Your task to perform on an android device: snooze an email in the gmail app Image 0: 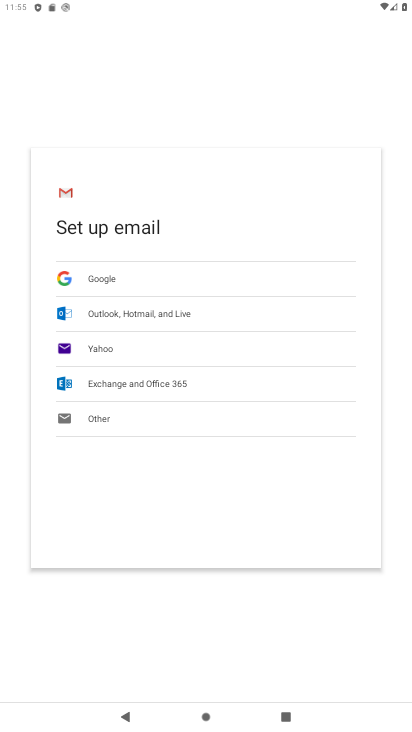
Step 0: press home button
Your task to perform on an android device: snooze an email in the gmail app Image 1: 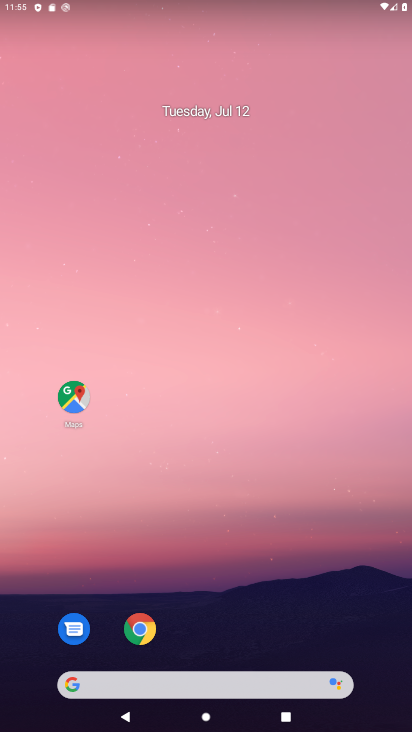
Step 1: drag from (216, 579) to (5, 541)
Your task to perform on an android device: snooze an email in the gmail app Image 2: 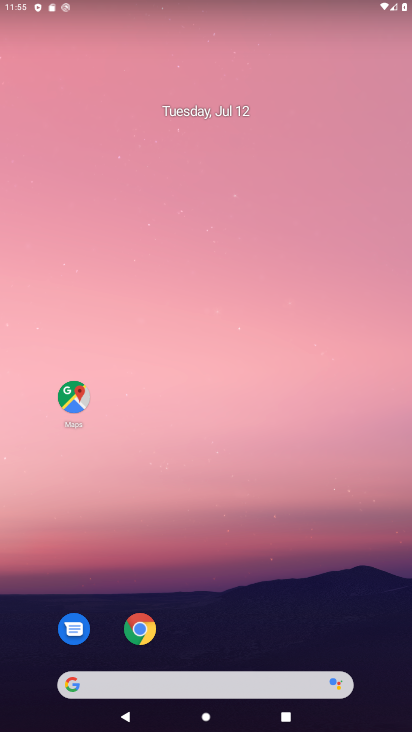
Step 2: drag from (217, 415) to (197, 65)
Your task to perform on an android device: snooze an email in the gmail app Image 3: 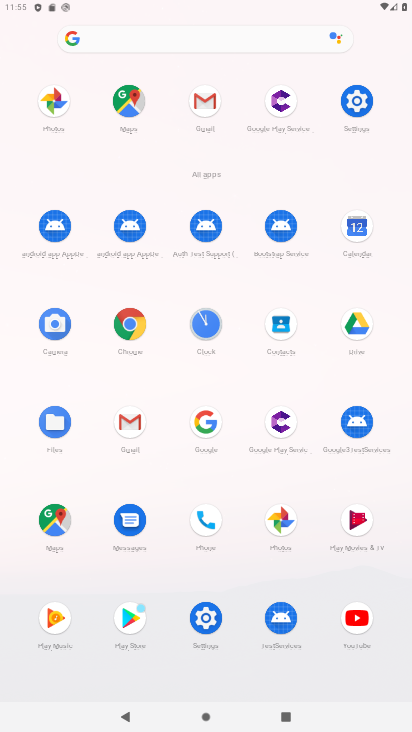
Step 3: click (203, 115)
Your task to perform on an android device: snooze an email in the gmail app Image 4: 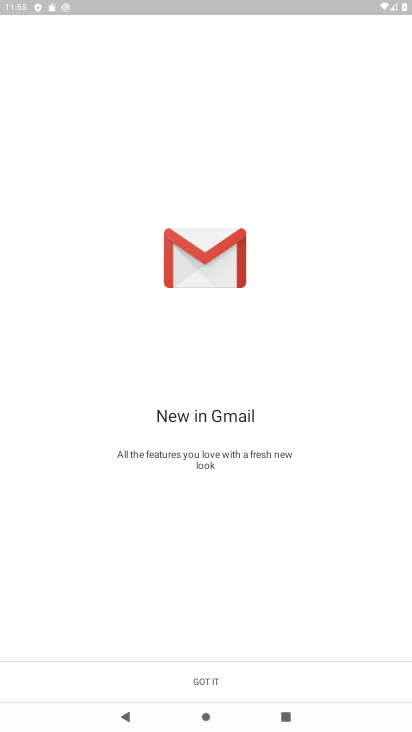
Step 4: click (214, 686)
Your task to perform on an android device: snooze an email in the gmail app Image 5: 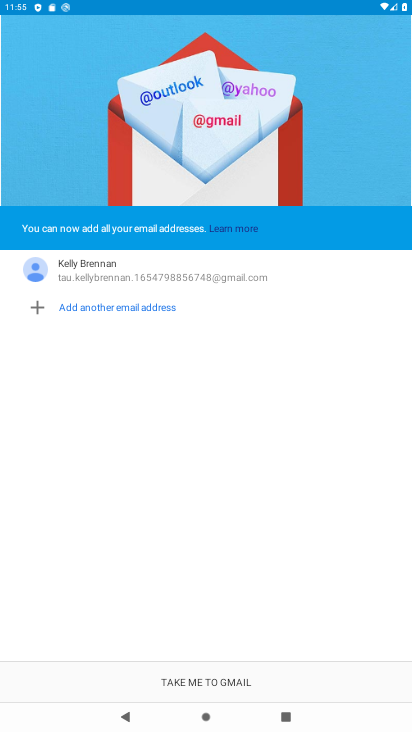
Step 5: click (214, 686)
Your task to perform on an android device: snooze an email in the gmail app Image 6: 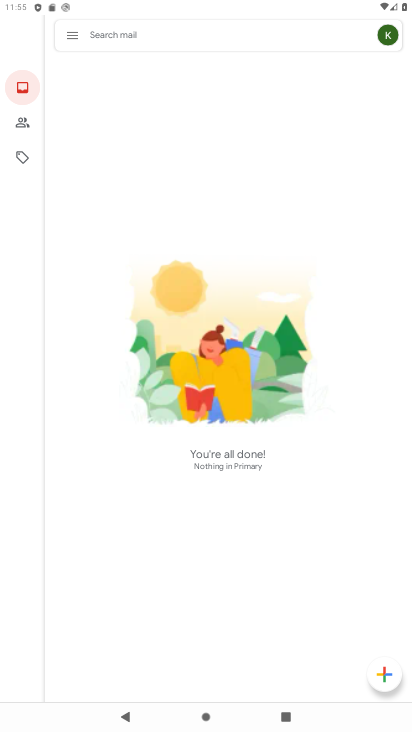
Step 6: click (72, 35)
Your task to perform on an android device: snooze an email in the gmail app Image 7: 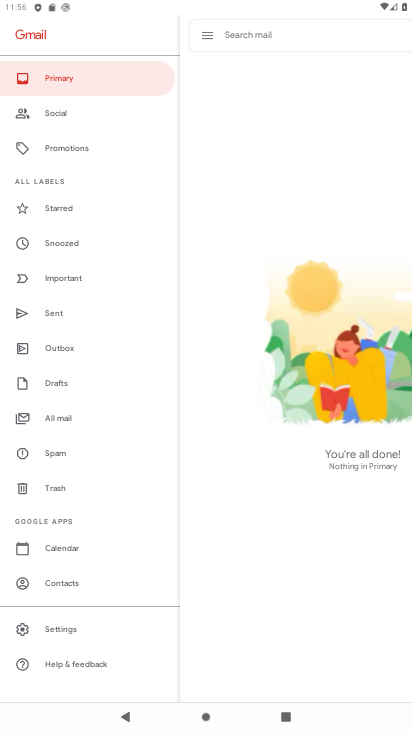
Step 7: click (57, 418)
Your task to perform on an android device: snooze an email in the gmail app Image 8: 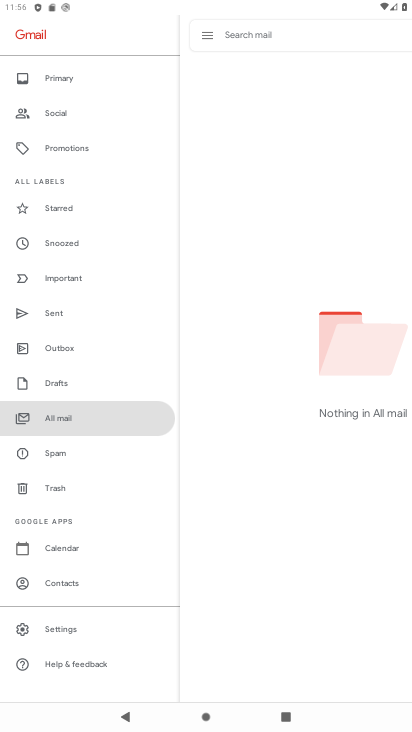
Step 8: task complete